Your task to perform on an android device: Open Youtube and go to the subscriptions tab Image 0: 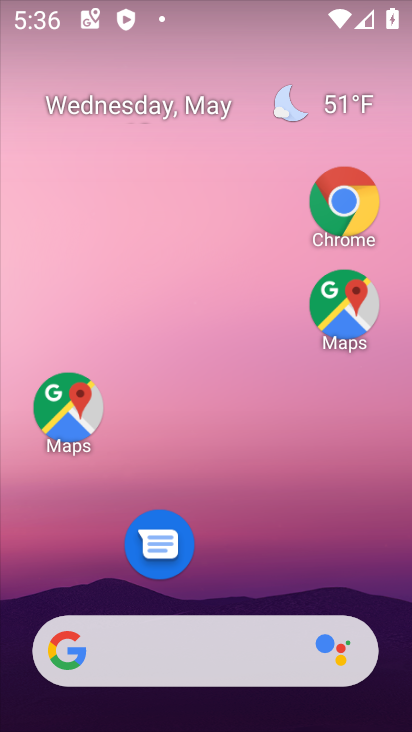
Step 0: click (333, 214)
Your task to perform on an android device: Open Youtube and go to the subscriptions tab Image 1: 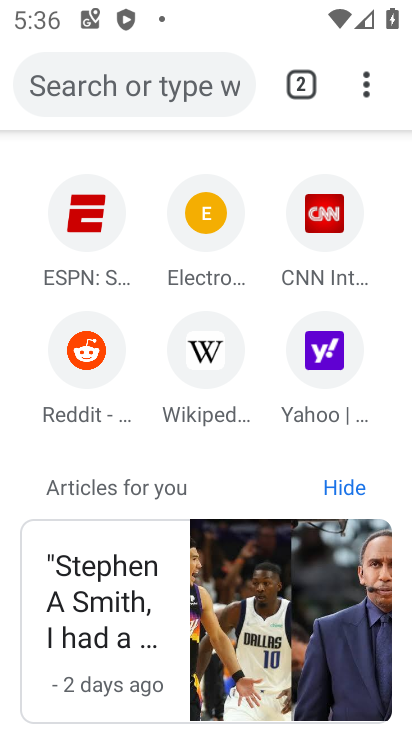
Step 1: click (370, 91)
Your task to perform on an android device: Open Youtube and go to the subscriptions tab Image 2: 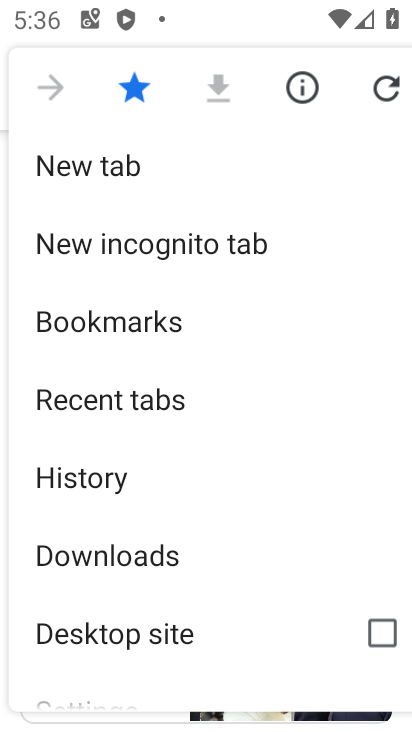
Step 2: click (101, 323)
Your task to perform on an android device: Open Youtube and go to the subscriptions tab Image 3: 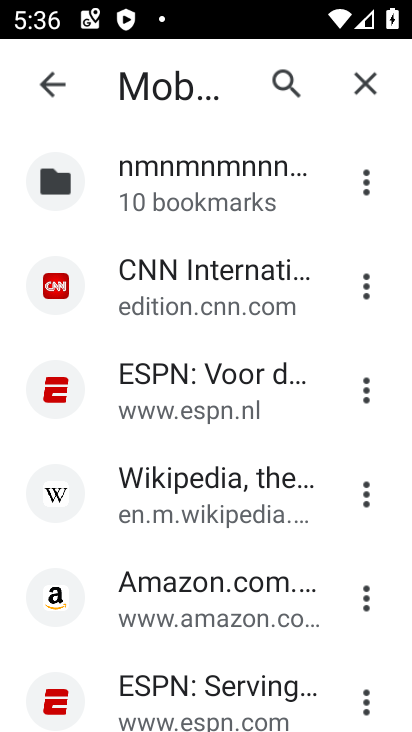
Step 3: click (183, 298)
Your task to perform on an android device: Open Youtube and go to the subscriptions tab Image 4: 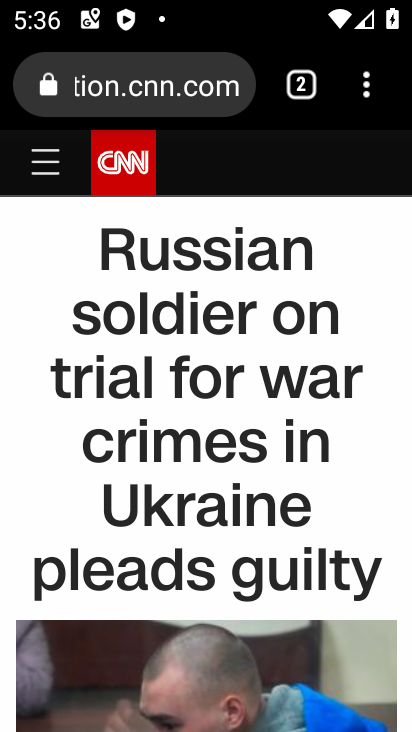
Step 4: task complete